Your task to perform on an android device: empty trash in google photos Image 0: 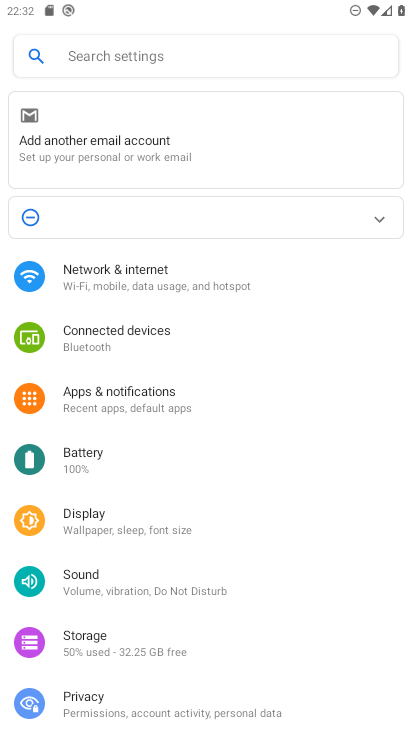
Step 0: press home button
Your task to perform on an android device: empty trash in google photos Image 1: 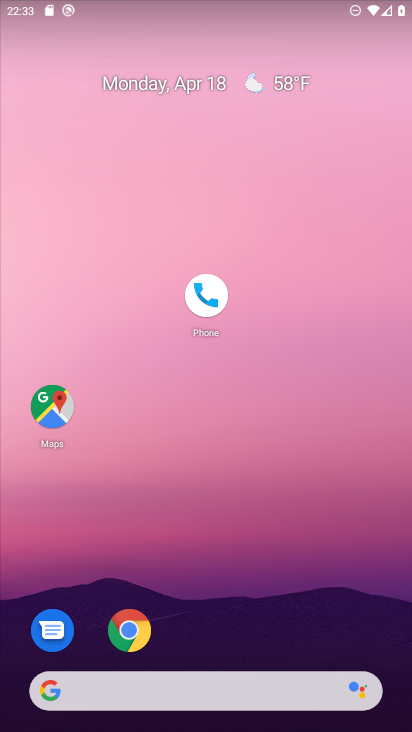
Step 1: drag from (273, 624) to (329, 156)
Your task to perform on an android device: empty trash in google photos Image 2: 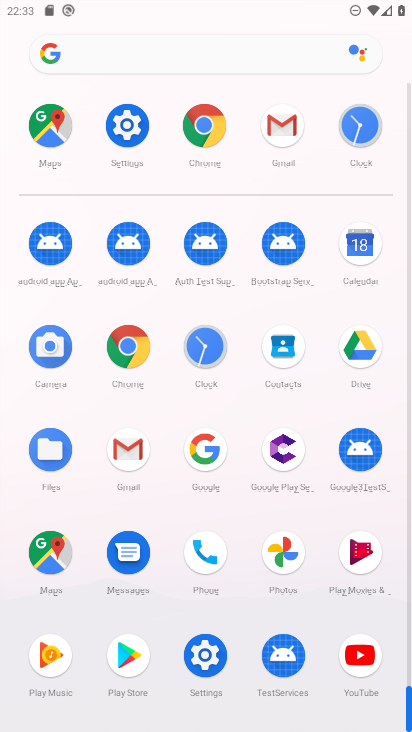
Step 2: click (285, 554)
Your task to perform on an android device: empty trash in google photos Image 3: 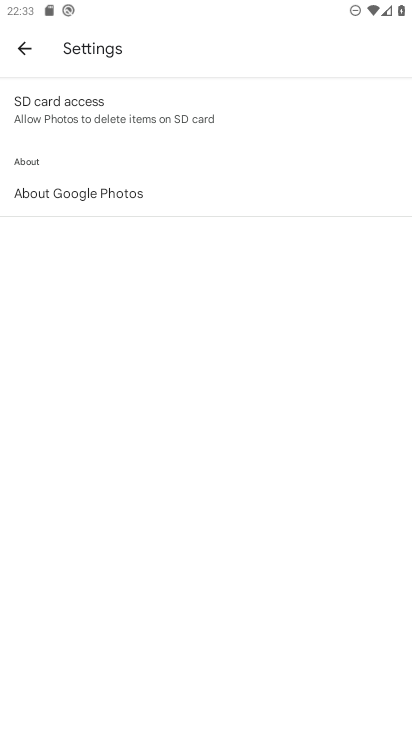
Step 3: click (22, 48)
Your task to perform on an android device: empty trash in google photos Image 4: 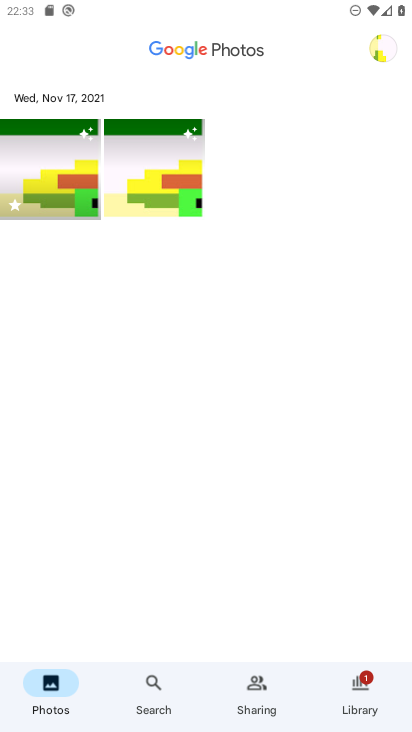
Step 4: click (47, 683)
Your task to perform on an android device: empty trash in google photos Image 5: 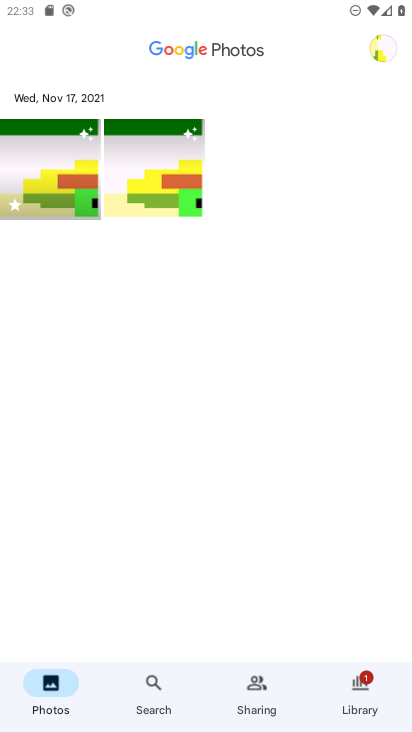
Step 5: click (381, 42)
Your task to perform on an android device: empty trash in google photos Image 6: 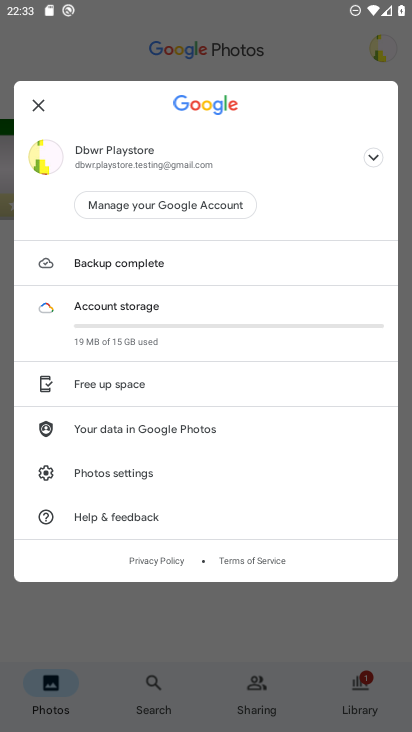
Step 6: click (147, 382)
Your task to perform on an android device: empty trash in google photos Image 7: 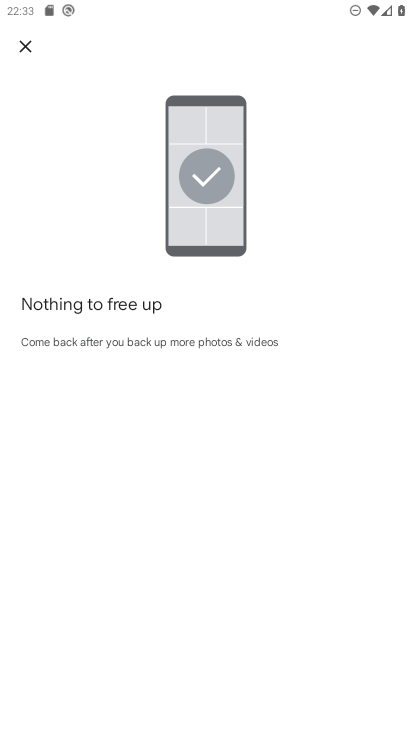
Step 7: click (29, 46)
Your task to perform on an android device: empty trash in google photos Image 8: 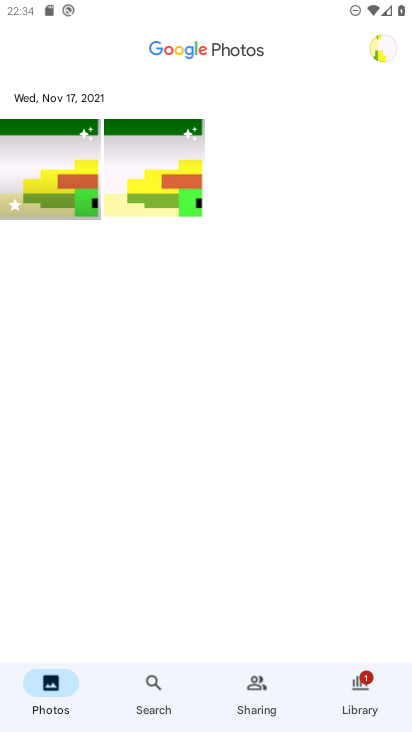
Step 8: click (371, 49)
Your task to perform on an android device: empty trash in google photos Image 9: 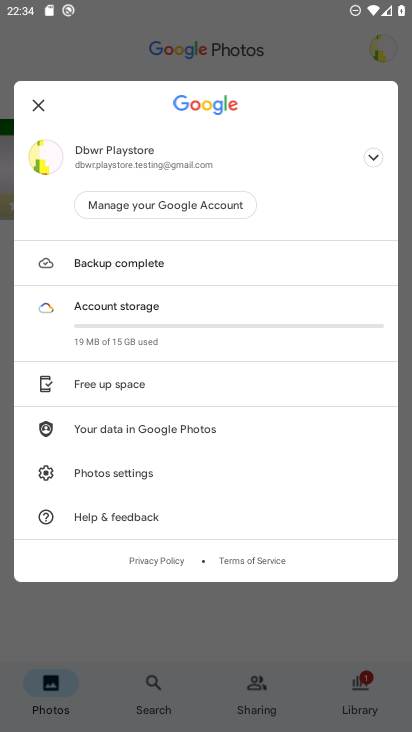
Step 9: click (151, 470)
Your task to perform on an android device: empty trash in google photos Image 10: 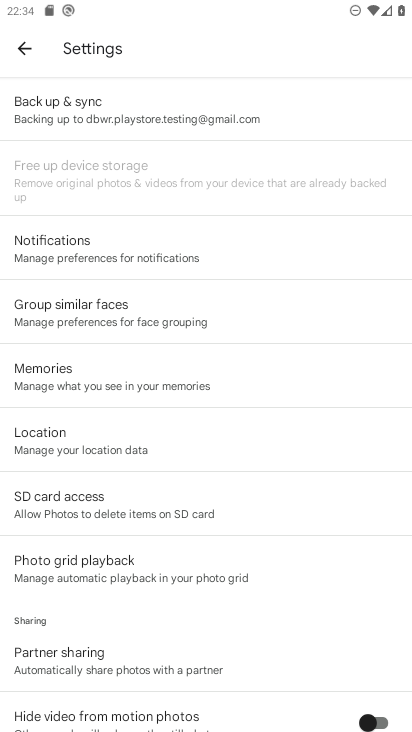
Step 10: drag from (233, 634) to (324, 53)
Your task to perform on an android device: empty trash in google photos Image 11: 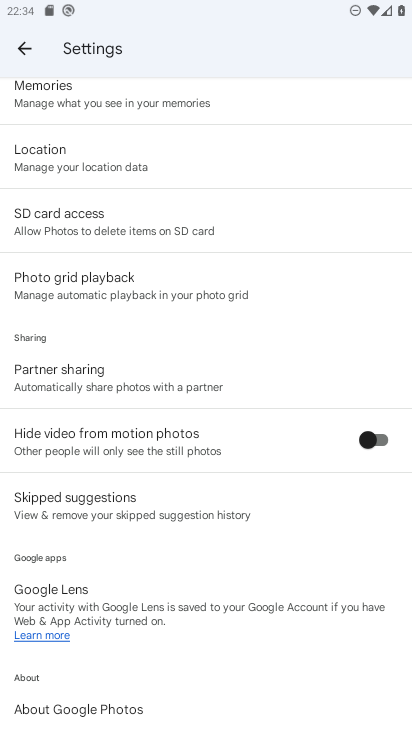
Step 11: click (28, 49)
Your task to perform on an android device: empty trash in google photos Image 12: 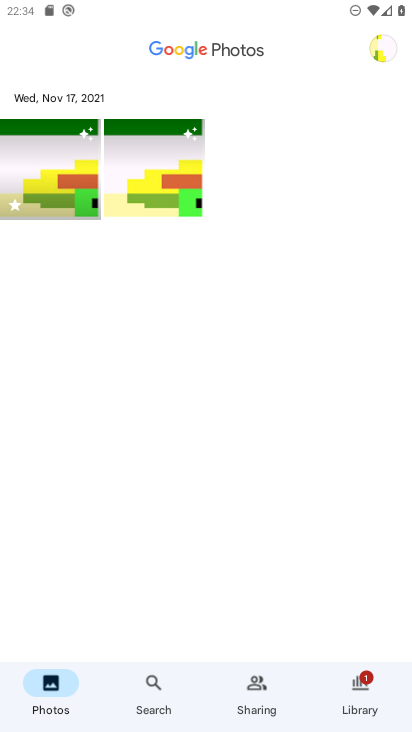
Step 12: click (374, 50)
Your task to perform on an android device: empty trash in google photos Image 13: 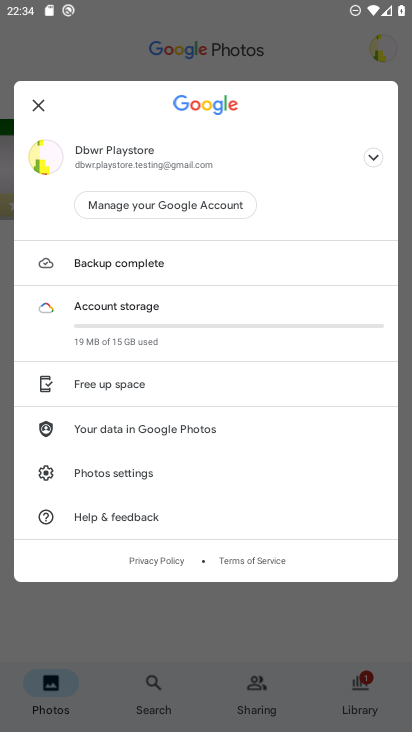
Step 13: click (175, 388)
Your task to perform on an android device: empty trash in google photos Image 14: 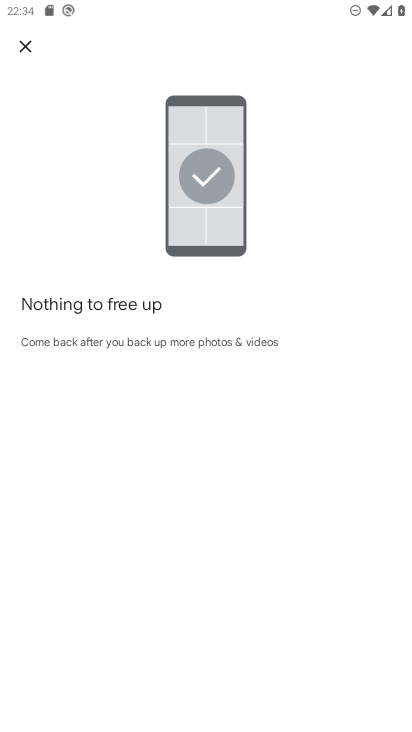
Step 14: task complete